Your task to perform on an android device: open app "Pluto TV - Live TV and Movies" (install if not already installed) Image 0: 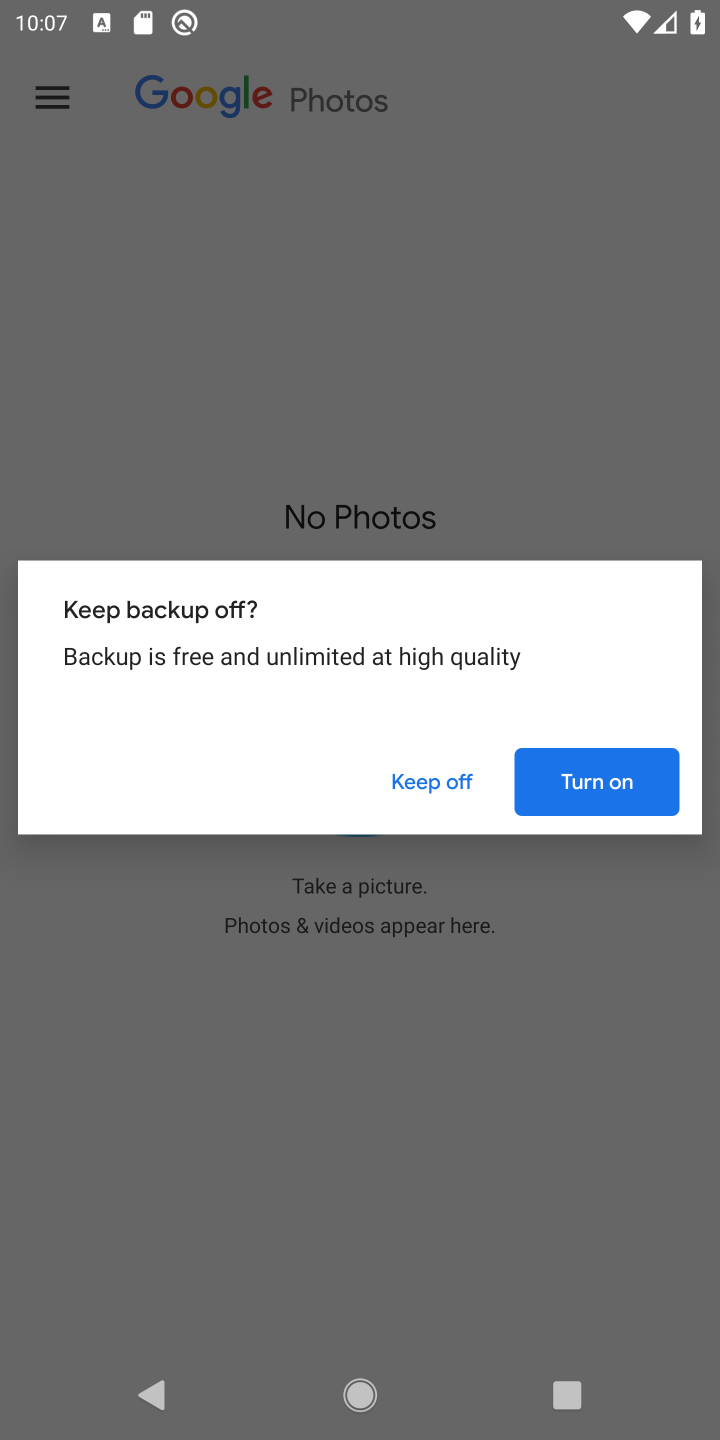
Step 0: press home button
Your task to perform on an android device: open app "Pluto TV - Live TV and Movies" (install if not already installed) Image 1: 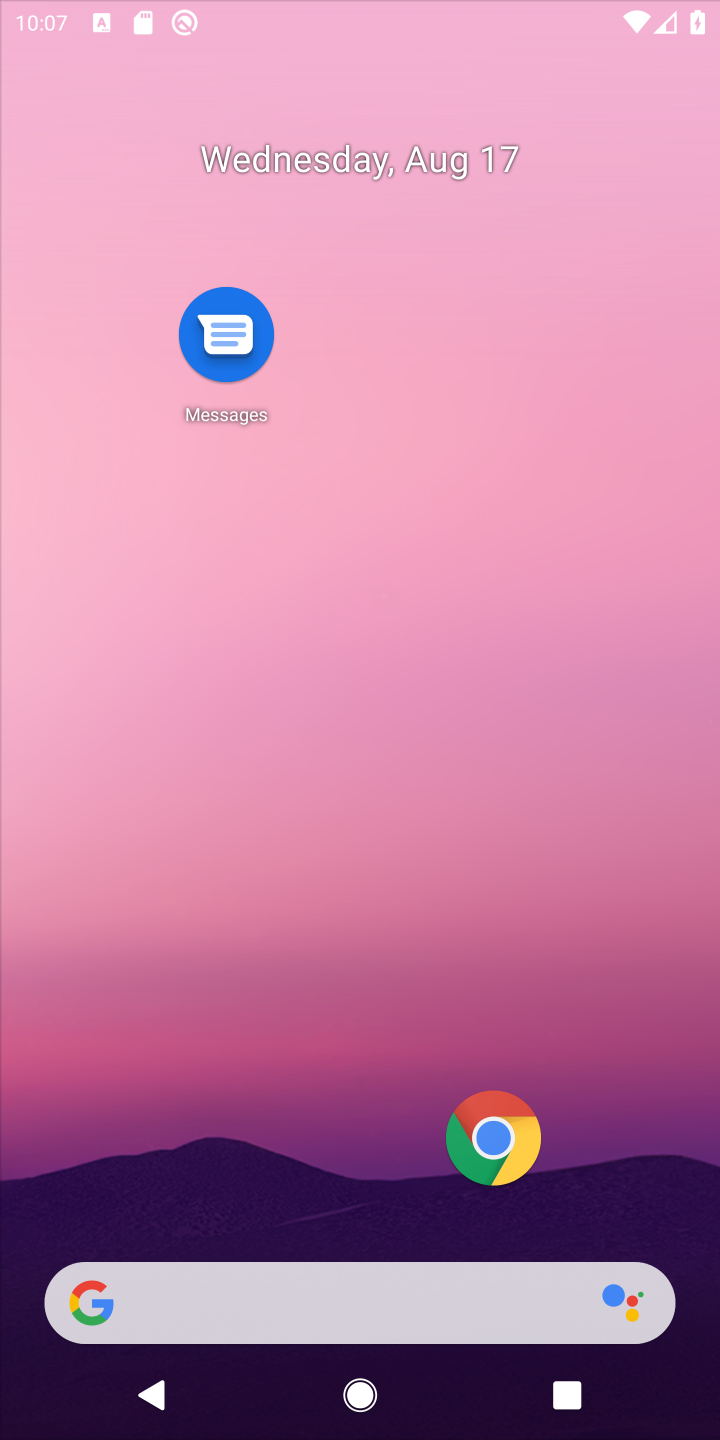
Step 1: drag from (183, 1225) to (285, 375)
Your task to perform on an android device: open app "Pluto TV - Live TV and Movies" (install if not already installed) Image 2: 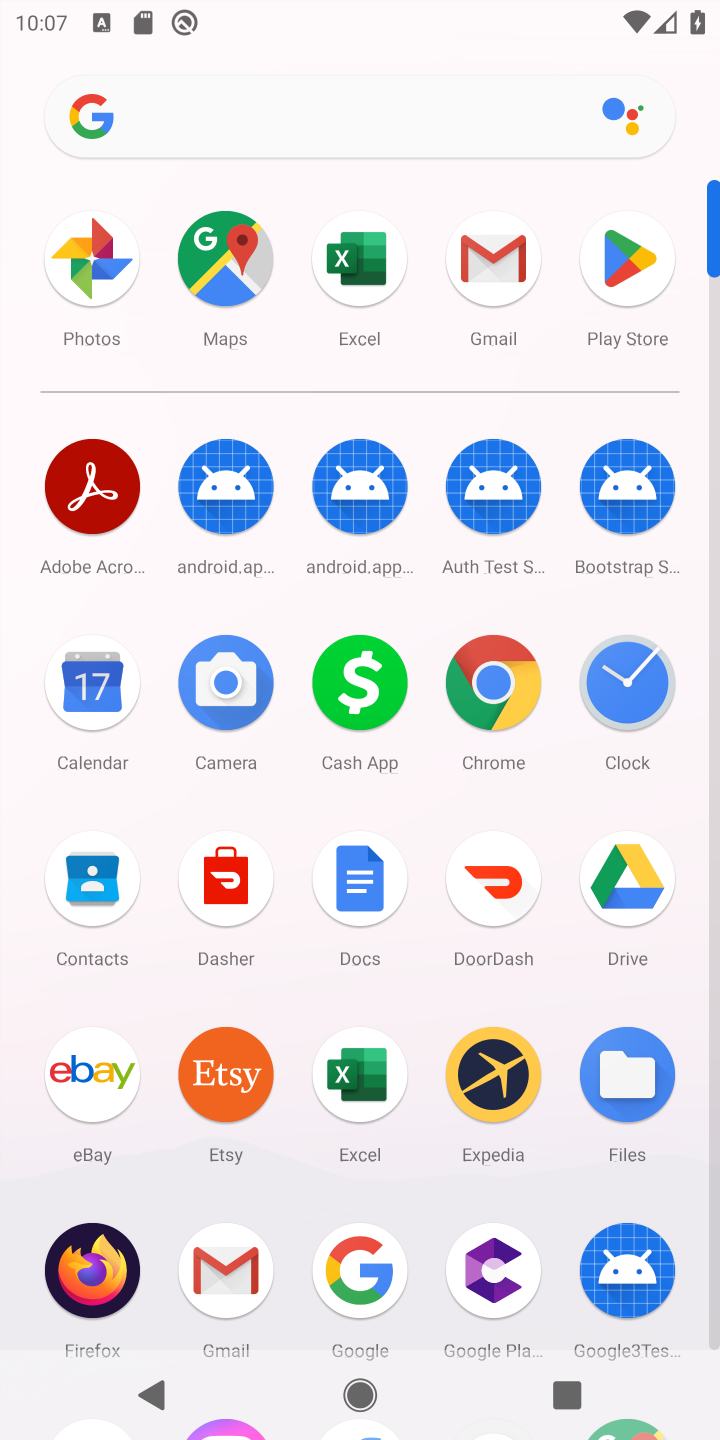
Step 2: click (630, 253)
Your task to perform on an android device: open app "Pluto TV - Live TV and Movies" (install if not already installed) Image 3: 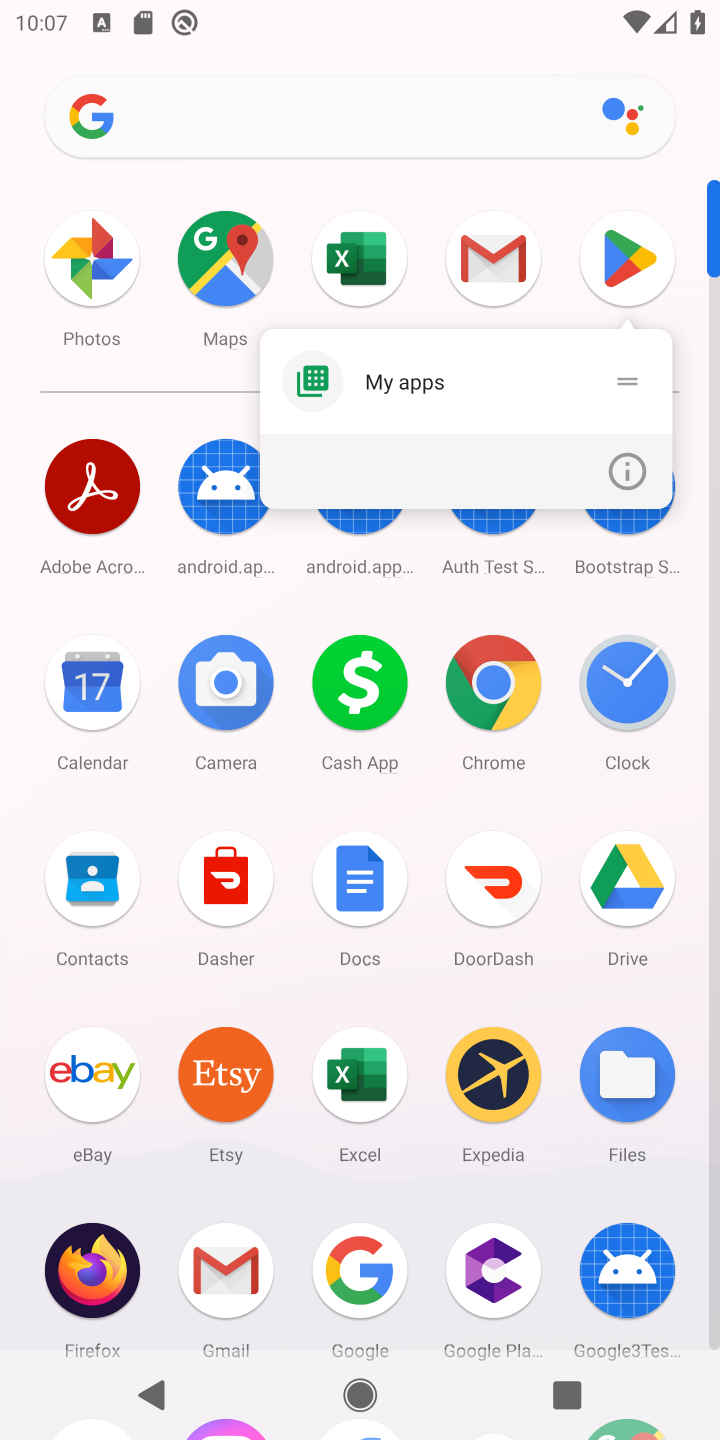
Step 3: click (630, 253)
Your task to perform on an android device: open app "Pluto TV - Live TV and Movies" (install if not already installed) Image 4: 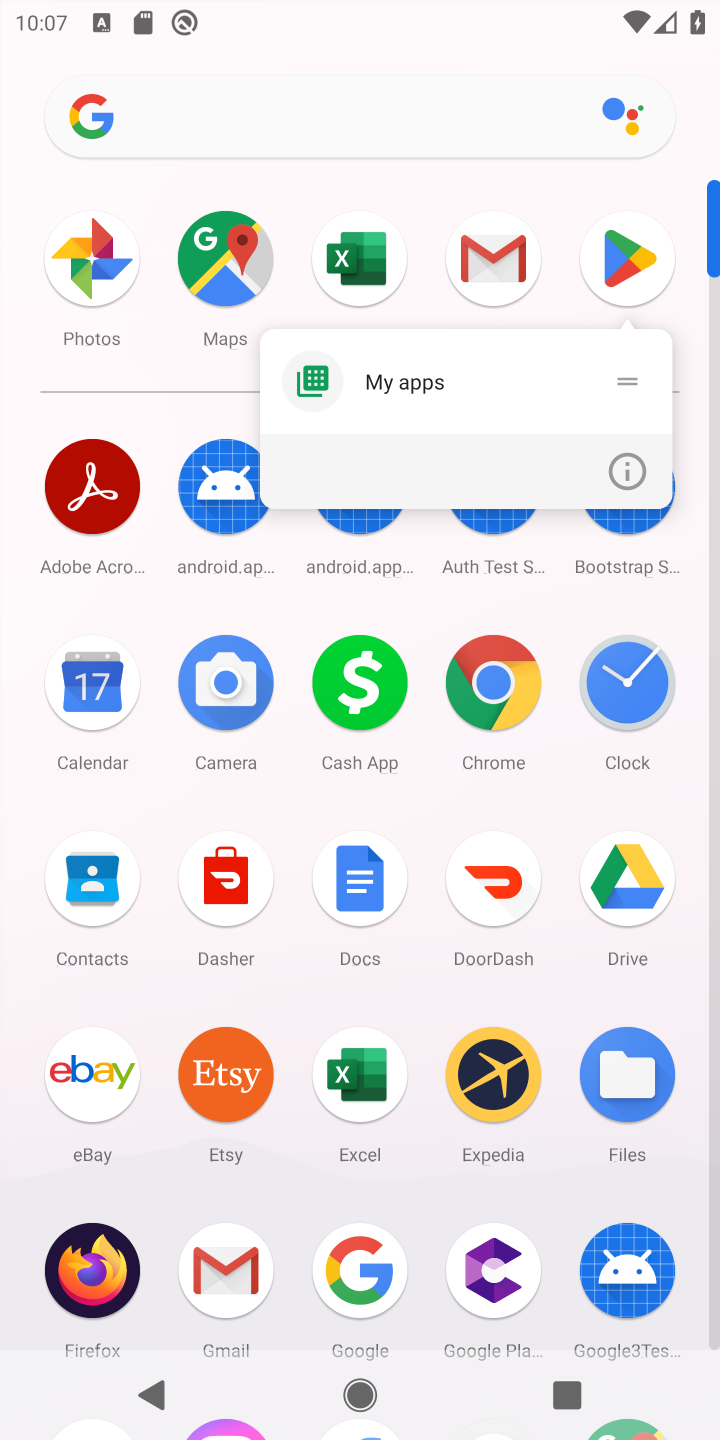
Step 4: click (634, 253)
Your task to perform on an android device: open app "Pluto TV - Live TV and Movies" (install if not already installed) Image 5: 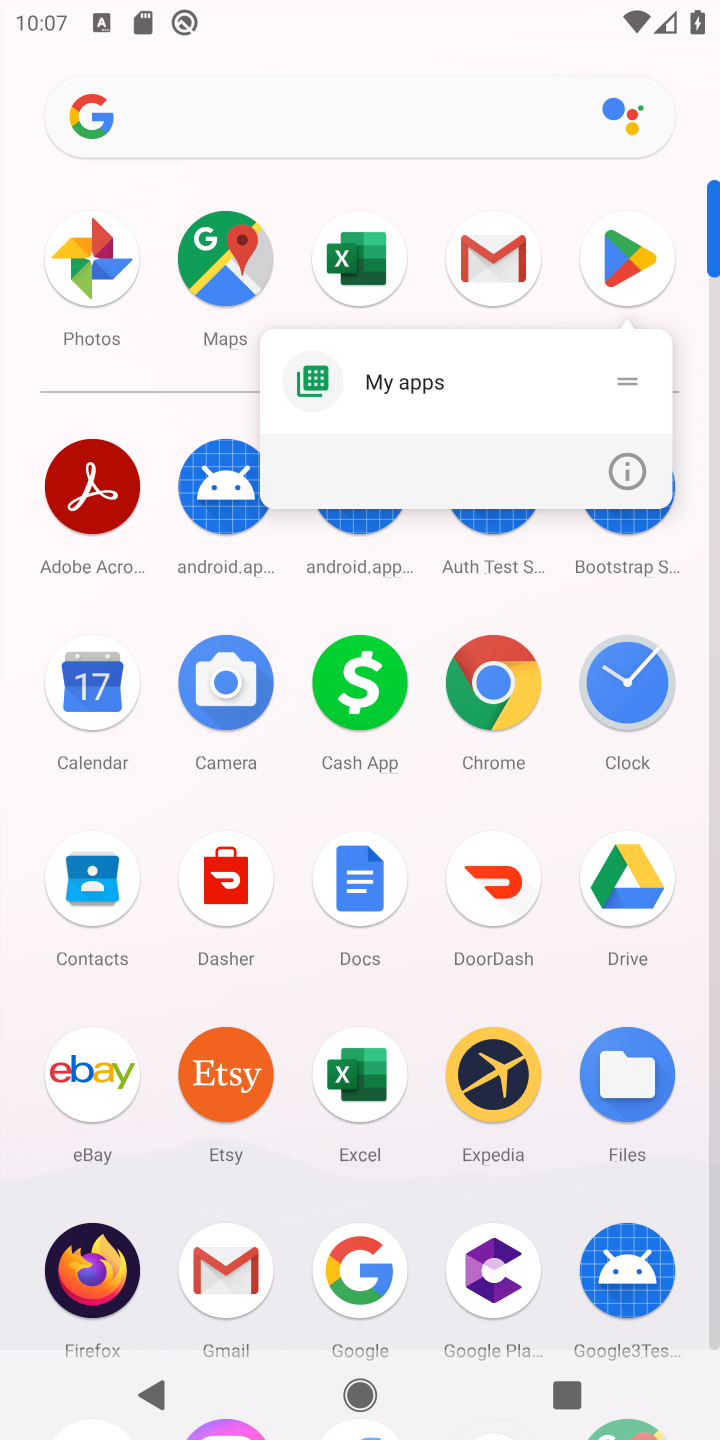
Step 5: click (608, 281)
Your task to perform on an android device: open app "Pluto TV - Live TV and Movies" (install if not already installed) Image 6: 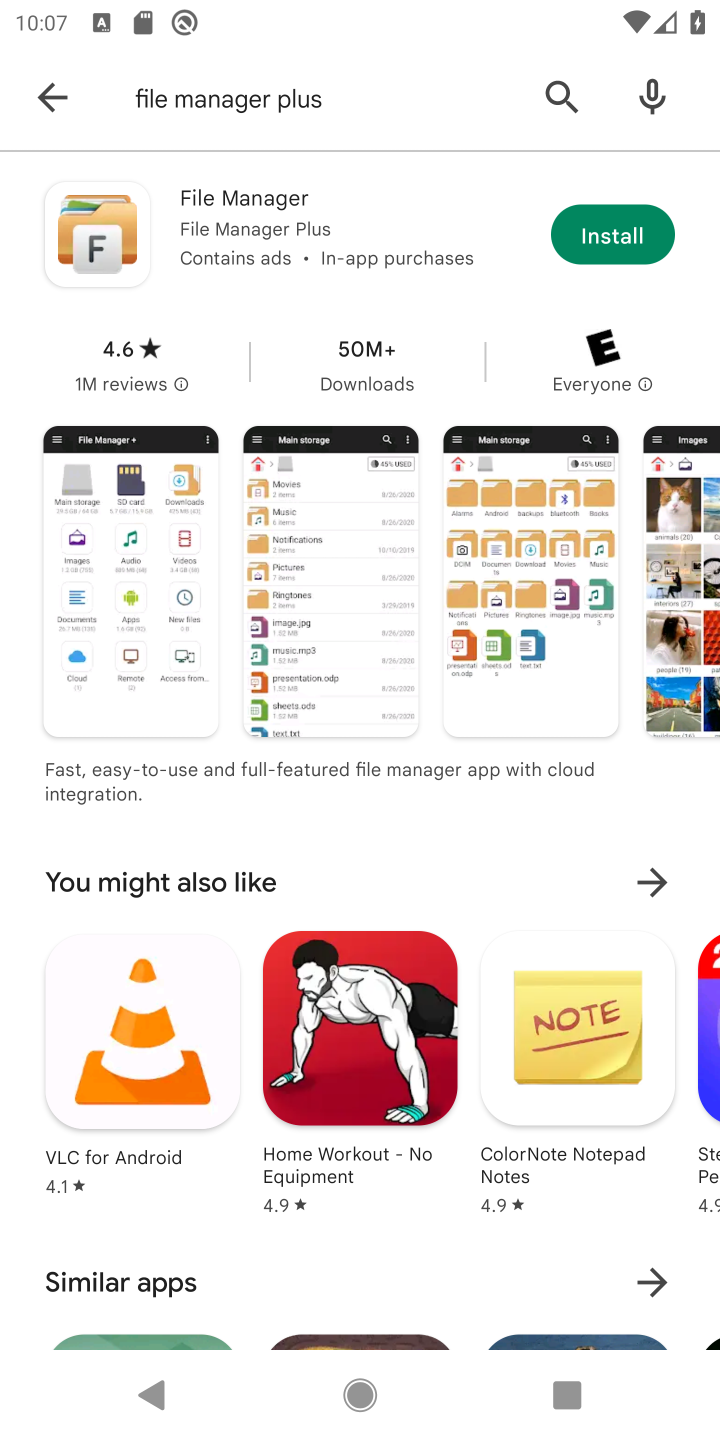
Step 6: click (42, 107)
Your task to perform on an android device: open app "Pluto TV - Live TV and Movies" (install if not already installed) Image 7: 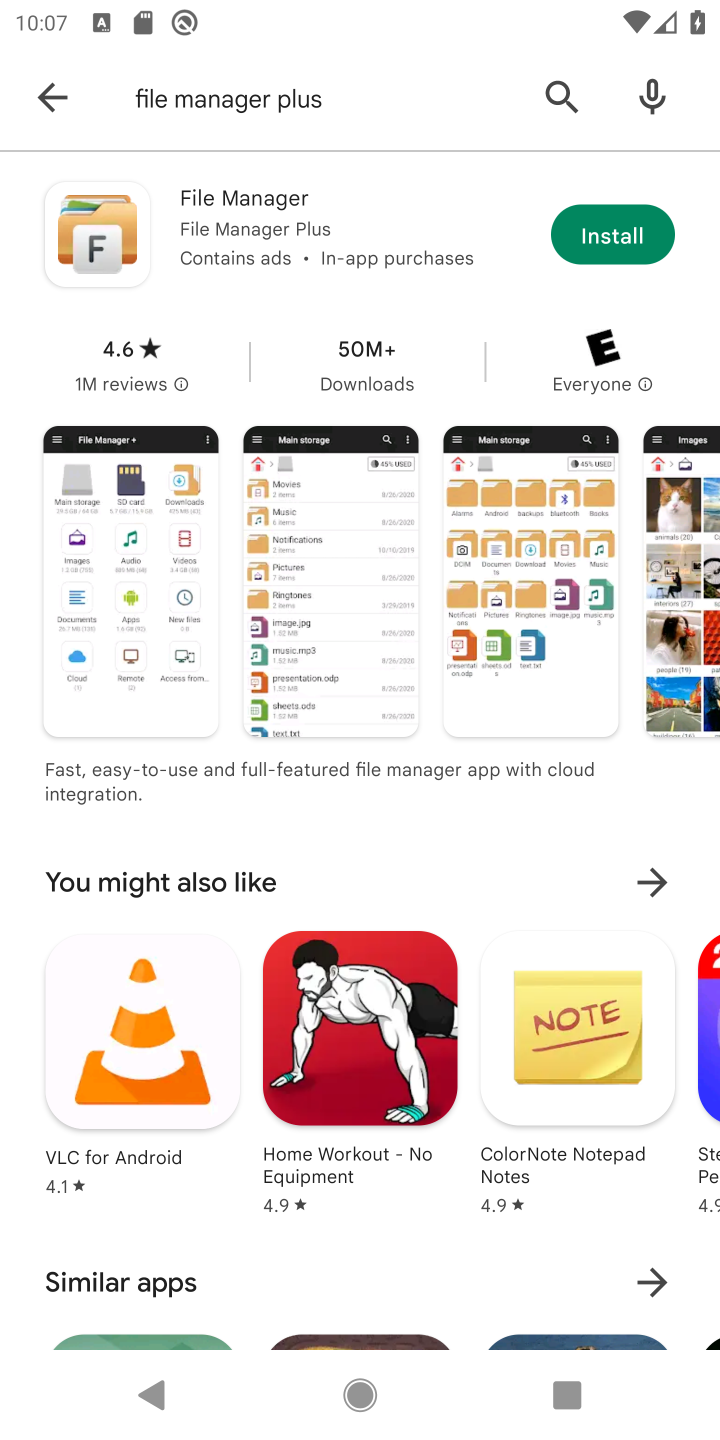
Step 7: click (42, 103)
Your task to perform on an android device: open app "Pluto TV - Live TV and Movies" (install if not already installed) Image 8: 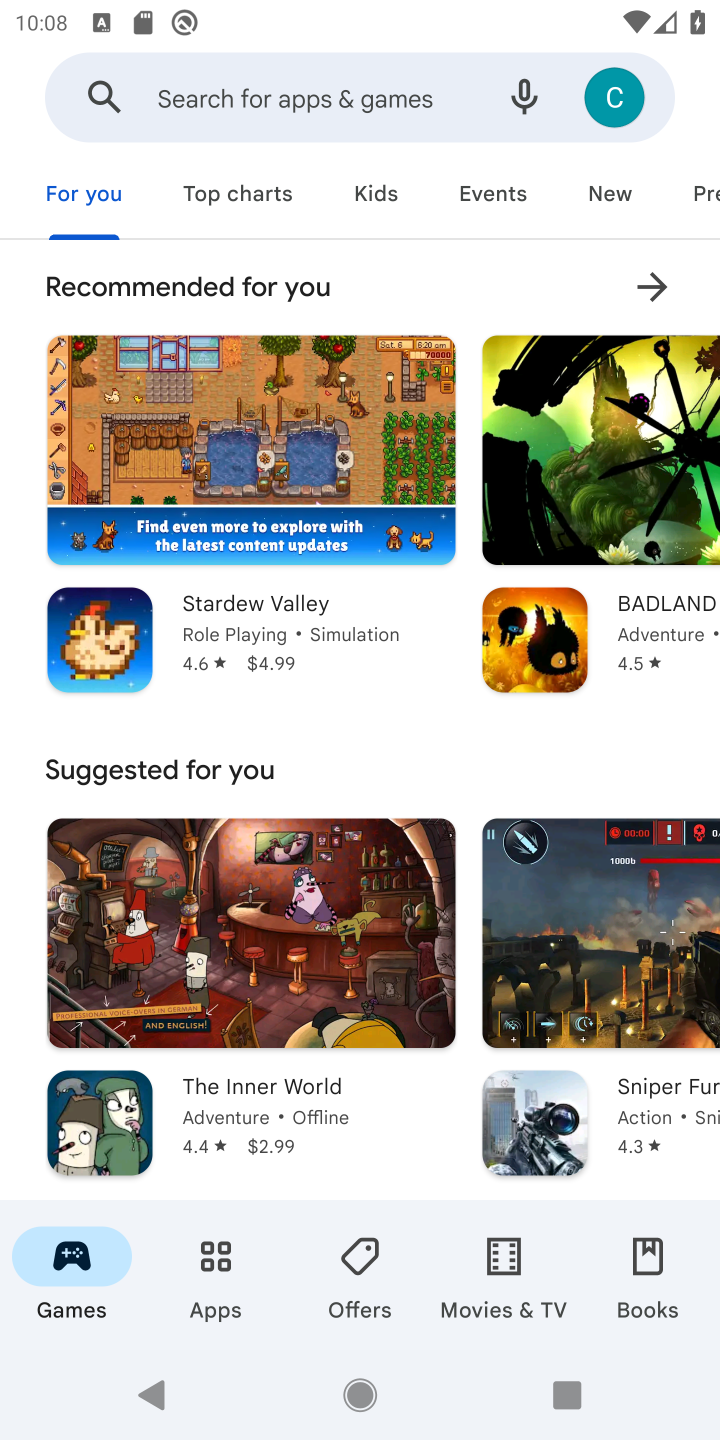
Step 8: click (451, 77)
Your task to perform on an android device: open app "Pluto TV - Live TV and Movies" (install if not already installed) Image 9: 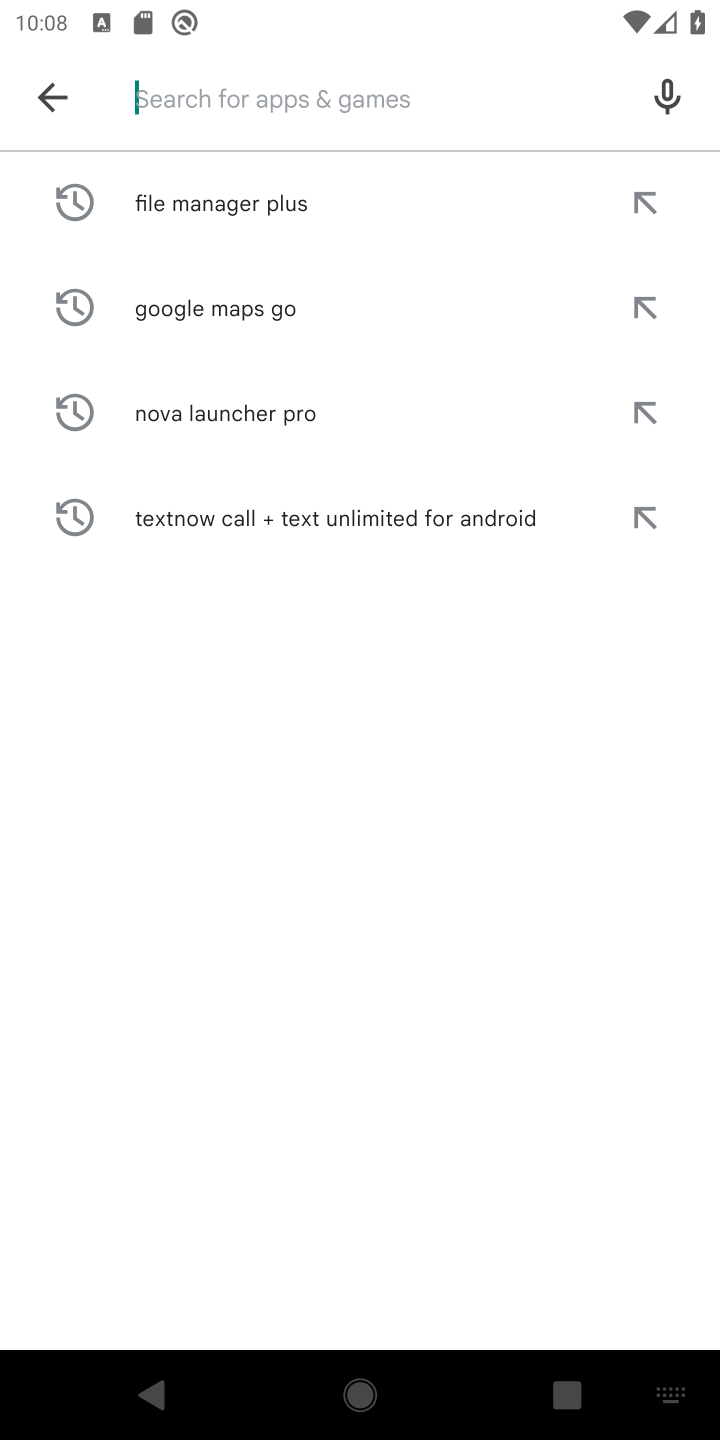
Step 9: type "Pluto TV - Live TV and Movies "
Your task to perform on an android device: open app "Pluto TV - Live TV and Movies" (install if not already installed) Image 10: 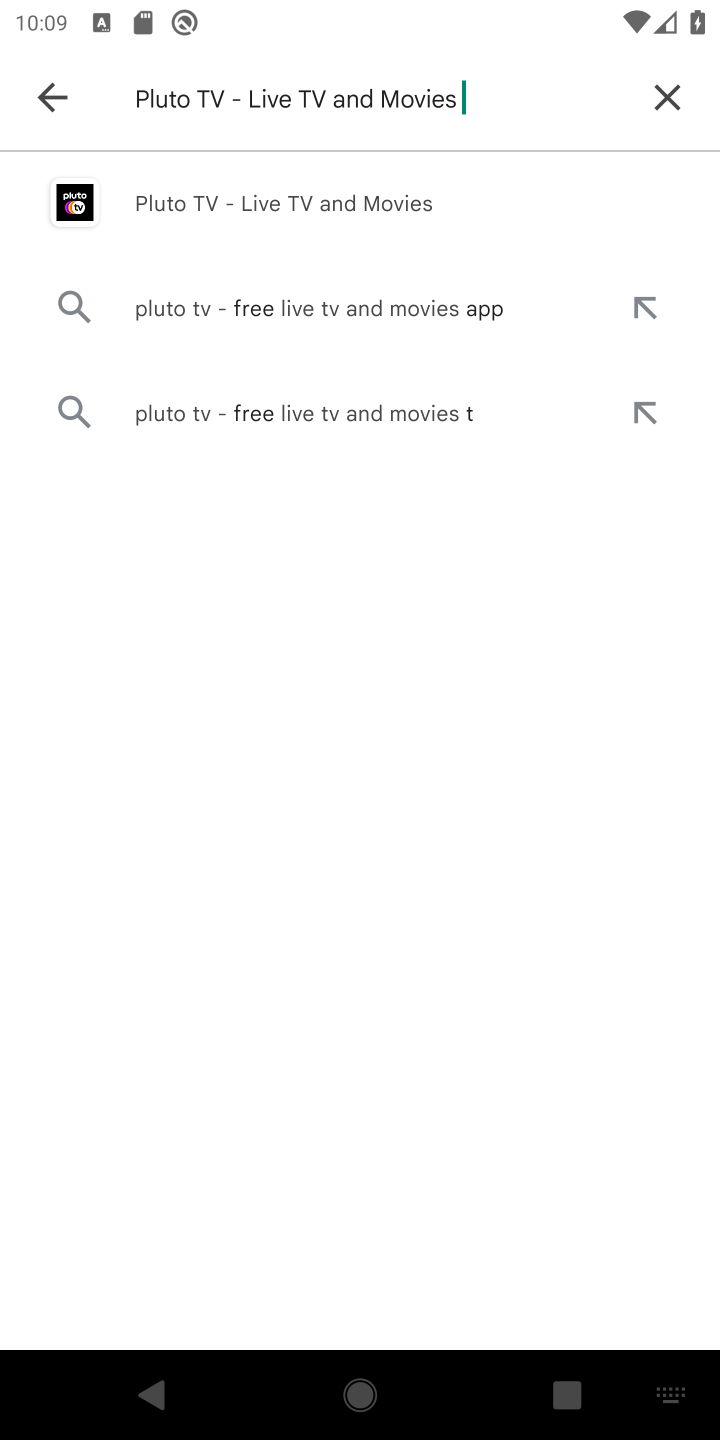
Step 10: click (314, 205)
Your task to perform on an android device: open app "Pluto TV - Live TV and Movies" (install if not already installed) Image 11: 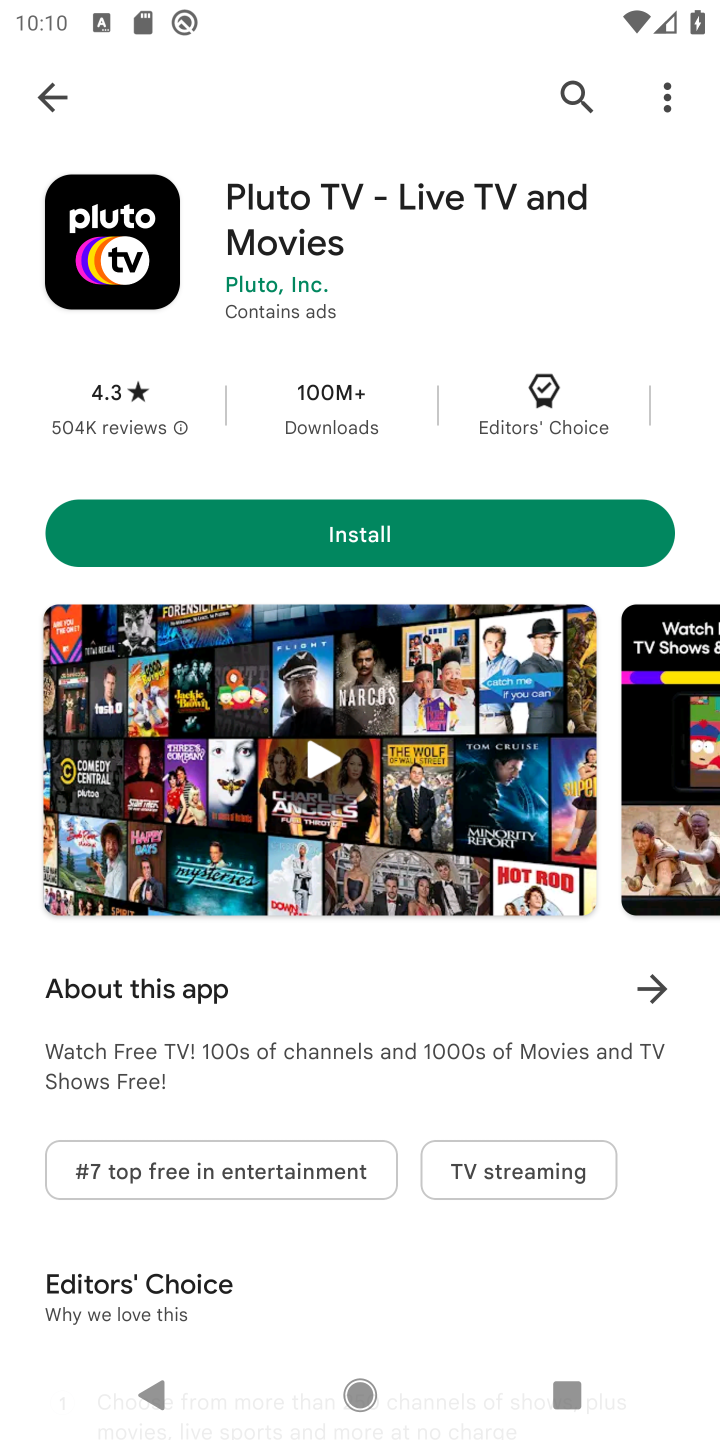
Step 11: click (477, 523)
Your task to perform on an android device: open app "Pluto TV - Live TV and Movies" (install if not already installed) Image 12: 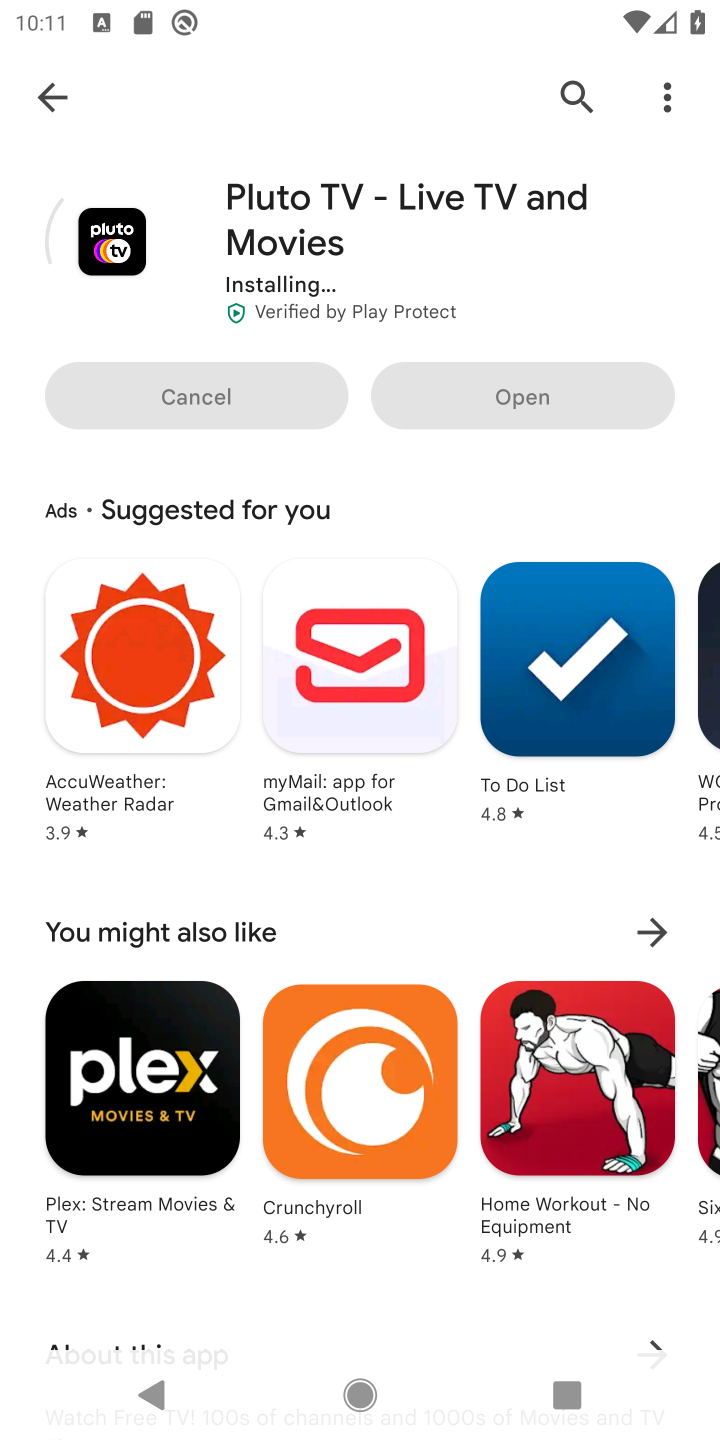
Step 12: task complete